Your task to perform on an android device: What is the recent news? Image 0: 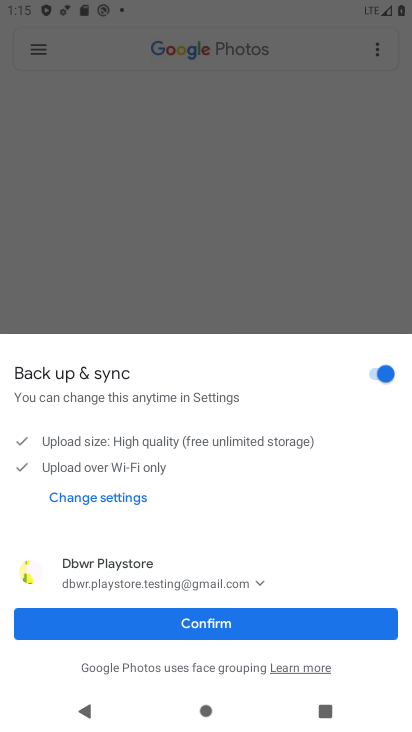
Step 0: press home button
Your task to perform on an android device: What is the recent news? Image 1: 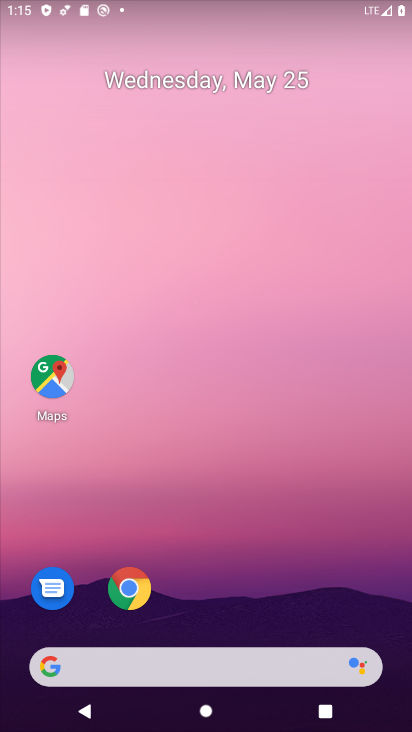
Step 1: click (131, 665)
Your task to perform on an android device: What is the recent news? Image 2: 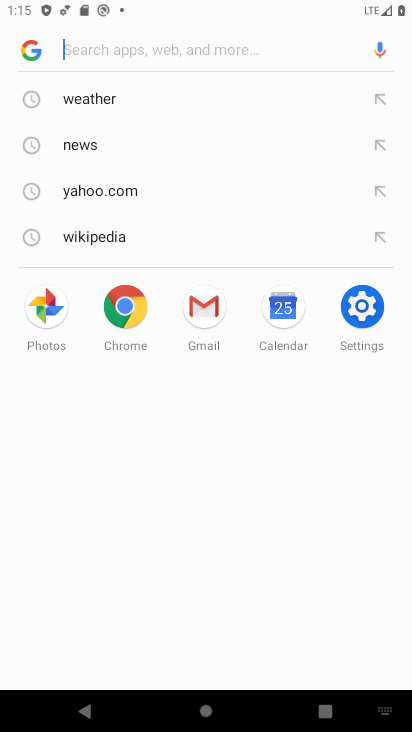
Step 2: click (110, 53)
Your task to perform on an android device: What is the recent news? Image 3: 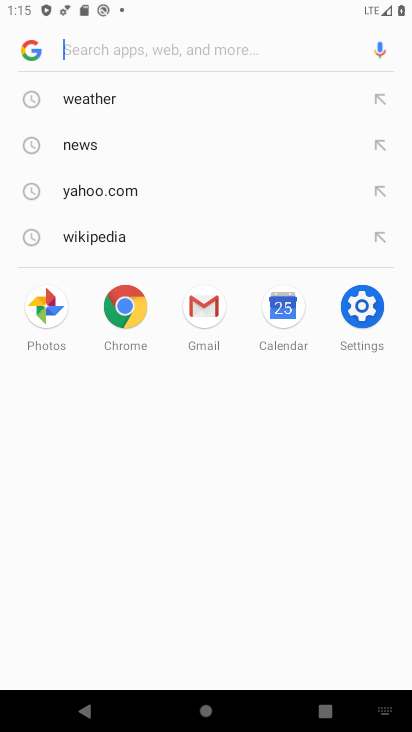
Step 3: type "recent news"
Your task to perform on an android device: What is the recent news? Image 4: 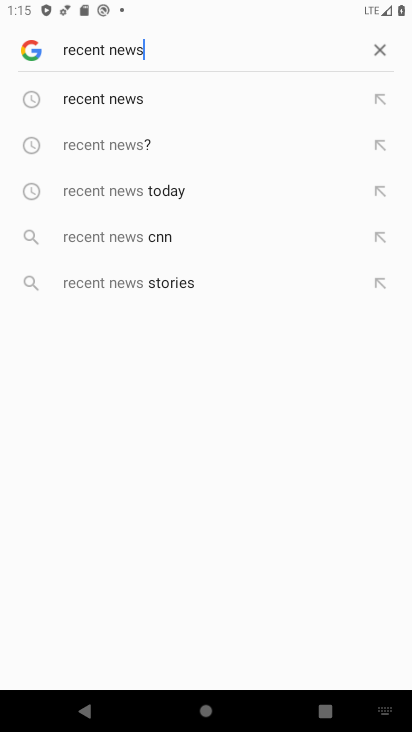
Step 4: click (85, 104)
Your task to perform on an android device: What is the recent news? Image 5: 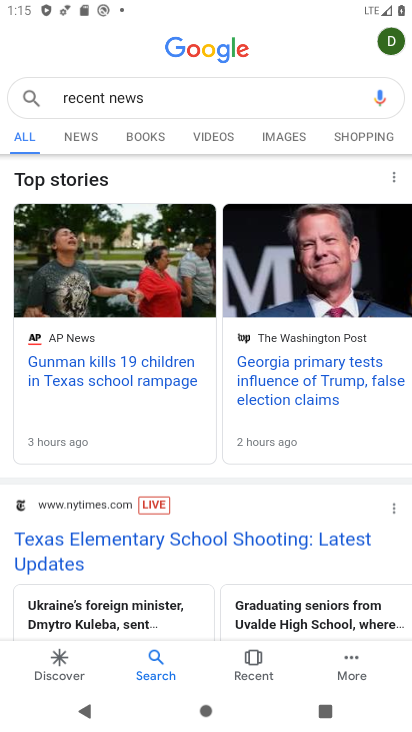
Step 5: drag from (306, 369) to (105, 356)
Your task to perform on an android device: What is the recent news? Image 6: 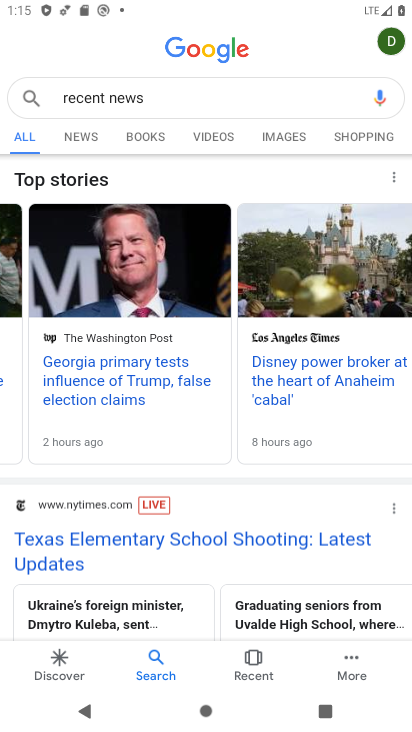
Step 6: click (81, 342)
Your task to perform on an android device: What is the recent news? Image 7: 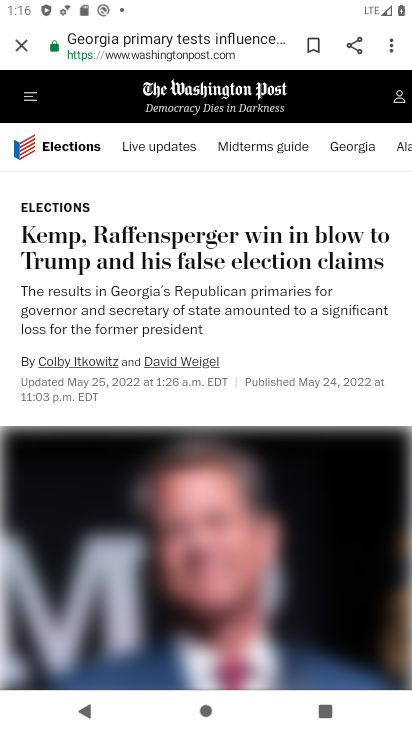
Step 7: task complete